Your task to perform on an android device: find which apps use the phone's location Image 0: 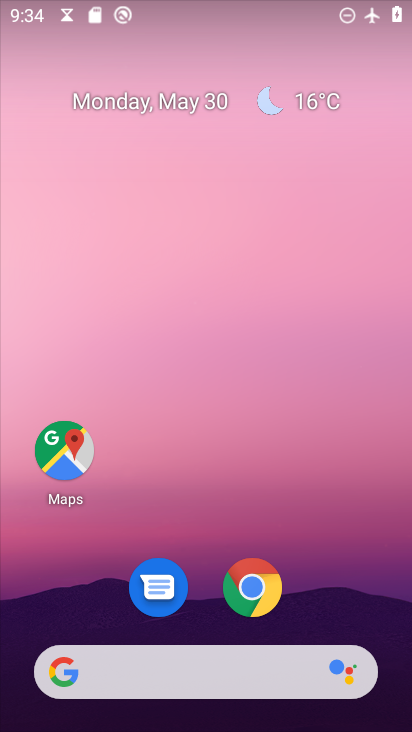
Step 0: drag from (232, 671) to (328, 186)
Your task to perform on an android device: find which apps use the phone's location Image 1: 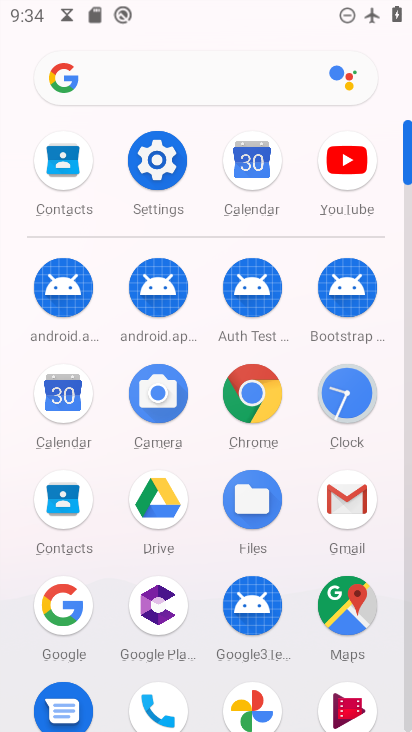
Step 1: click (160, 168)
Your task to perform on an android device: find which apps use the phone's location Image 2: 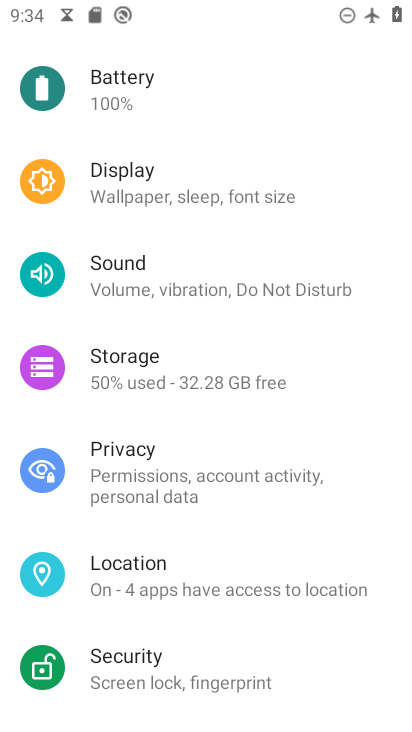
Step 2: click (154, 576)
Your task to perform on an android device: find which apps use the phone's location Image 3: 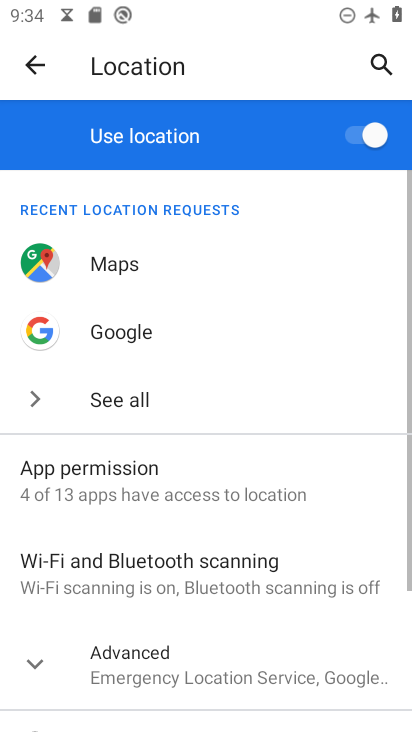
Step 3: click (102, 480)
Your task to perform on an android device: find which apps use the phone's location Image 4: 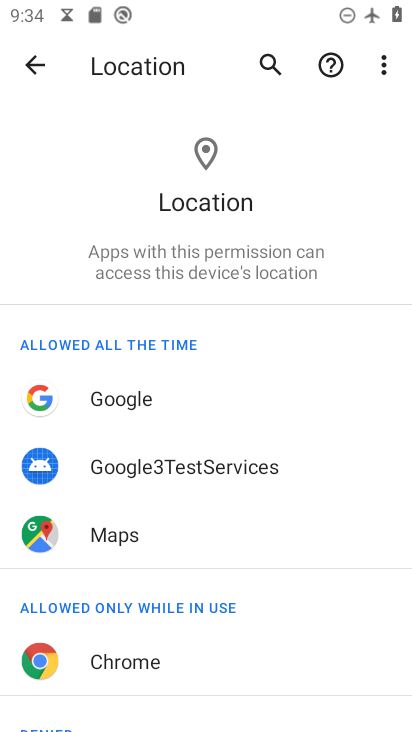
Step 4: drag from (211, 670) to (298, 218)
Your task to perform on an android device: find which apps use the phone's location Image 5: 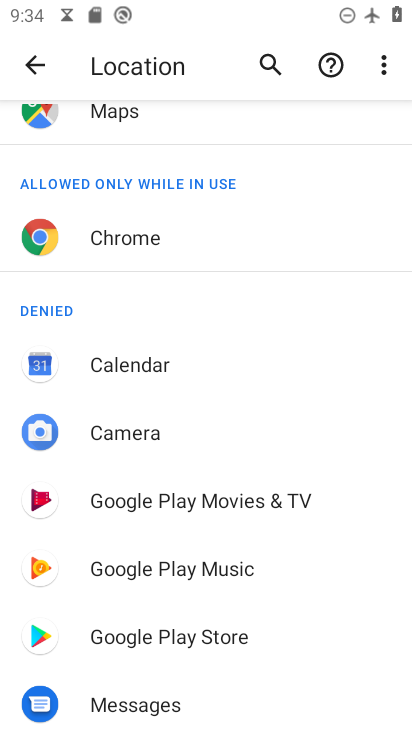
Step 5: drag from (273, 690) to (330, 237)
Your task to perform on an android device: find which apps use the phone's location Image 6: 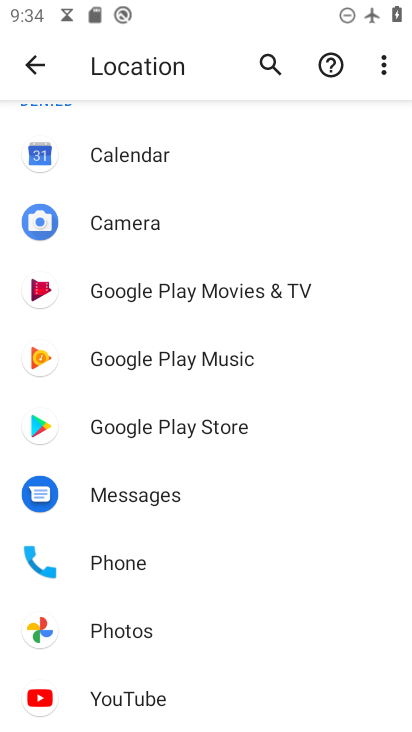
Step 6: click (120, 559)
Your task to perform on an android device: find which apps use the phone's location Image 7: 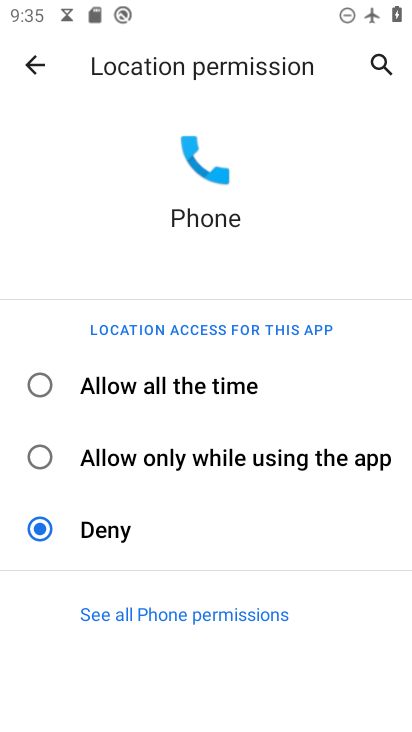
Step 7: task complete